Your task to perform on an android device: read, delete, or share a saved page in the chrome app Image 0: 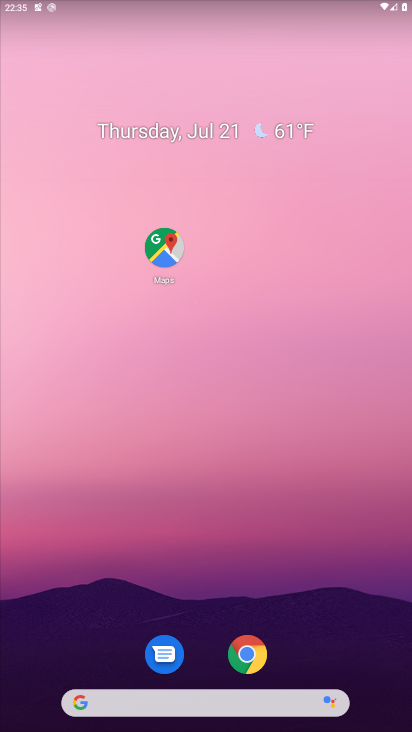
Step 0: click (258, 666)
Your task to perform on an android device: read, delete, or share a saved page in the chrome app Image 1: 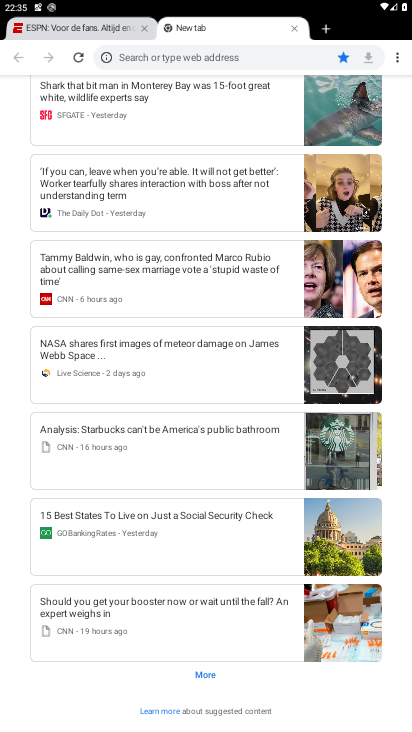
Step 1: task complete